Your task to perform on an android device: uninstall "Etsy: Buy & Sell Unique Items" Image 0: 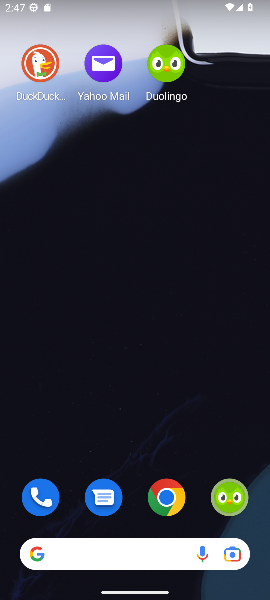
Step 0: drag from (101, 554) to (143, 154)
Your task to perform on an android device: uninstall "Etsy: Buy & Sell Unique Items" Image 1: 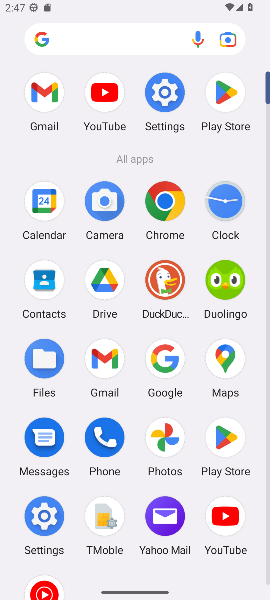
Step 1: click (225, 90)
Your task to perform on an android device: uninstall "Etsy: Buy & Sell Unique Items" Image 2: 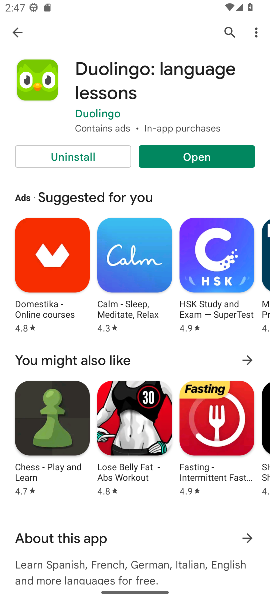
Step 2: press back button
Your task to perform on an android device: uninstall "Etsy: Buy & Sell Unique Items" Image 3: 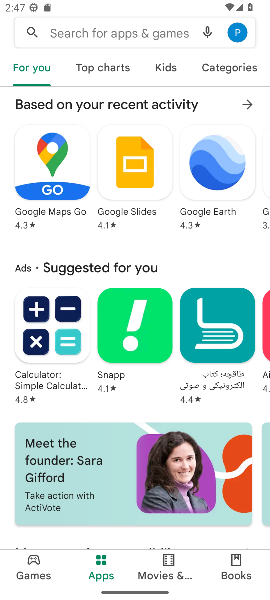
Step 3: click (164, 36)
Your task to perform on an android device: uninstall "Etsy: Buy & Sell Unique Items" Image 4: 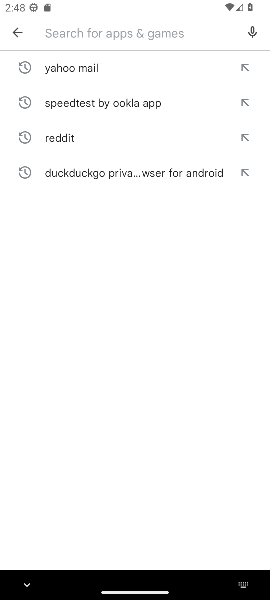
Step 4: type "Etsy: Buy & Sell Unique Items"
Your task to perform on an android device: uninstall "Etsy: Buy & Sell Unique Items" Image 5: 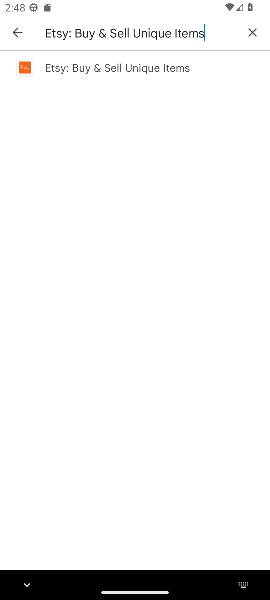
Step 5: click (182, 71)
Your task to perform on an android device: uninstall "Etsy: Buy & Sell Unique Items" Image 6: 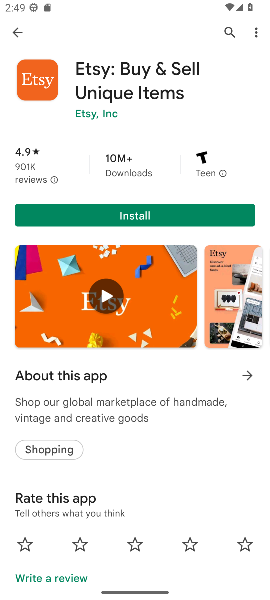
Step 6: task complete